Your task to perform on an android device: turn off notifications settings in the gmail app Image 0: 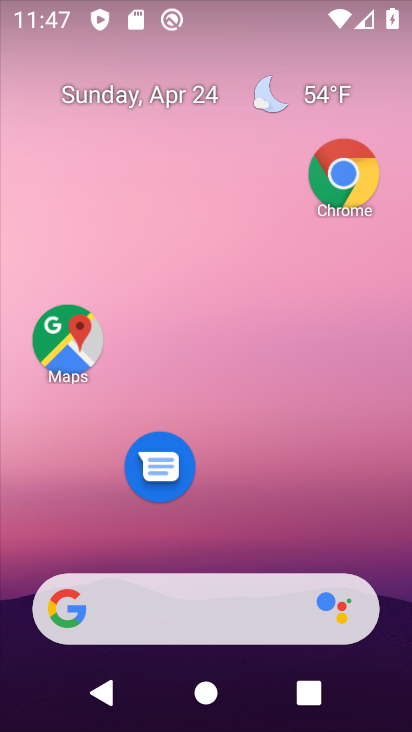
Step 0: drag from (231, 409) to (260, 169)
Your task to perform on an android device: turn off notifications settings in the gmail app Image 1: 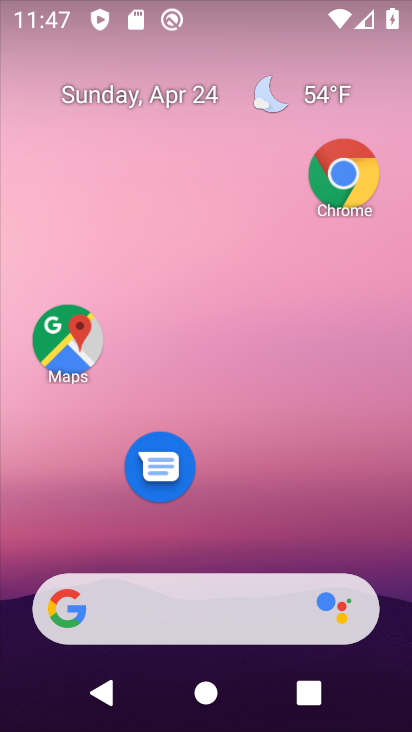
Step 1: drag from (220, 458) to (203, 121)
Your task to perform on an android device: turn off notifications settings in the gmail app Image 2: 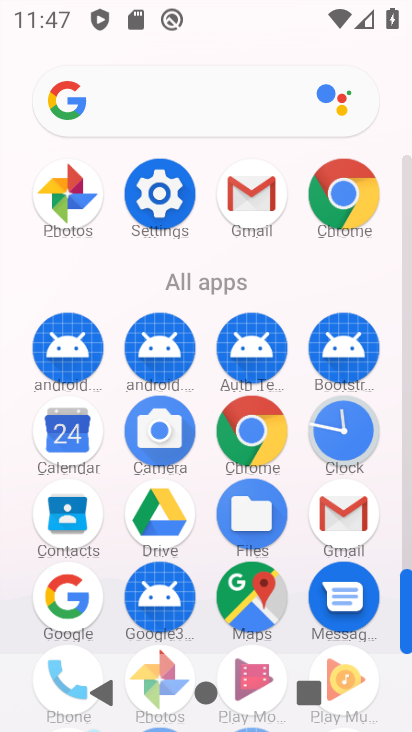
Step 2: click (336, 536)
Your task to perform on an android device: turn off notifications settings in the gmail app Image 3: 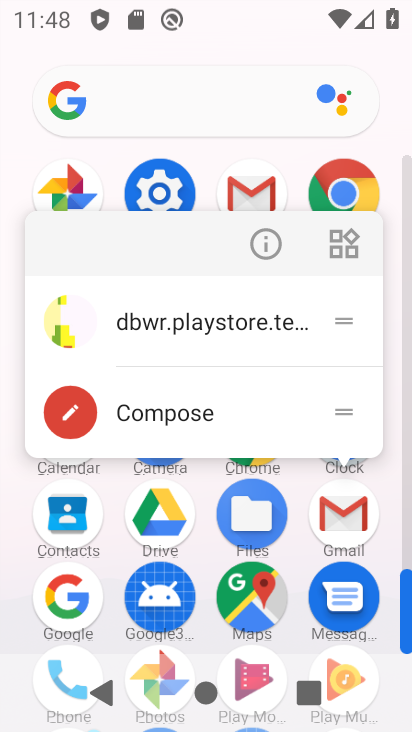
Step 3: click (250, 241)
Your task to perform on an android device: turn off notifications settings in the gmail app Image 4: 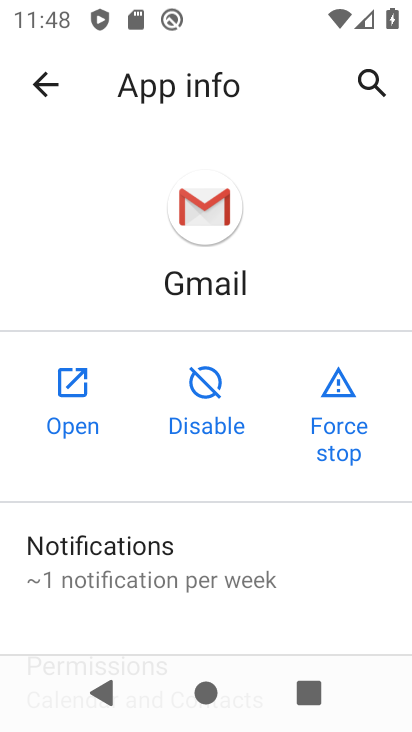
Step 4: click (77, 395)
Your task to perform on an android device: turn off notifications settings in the gmail app Image 5: 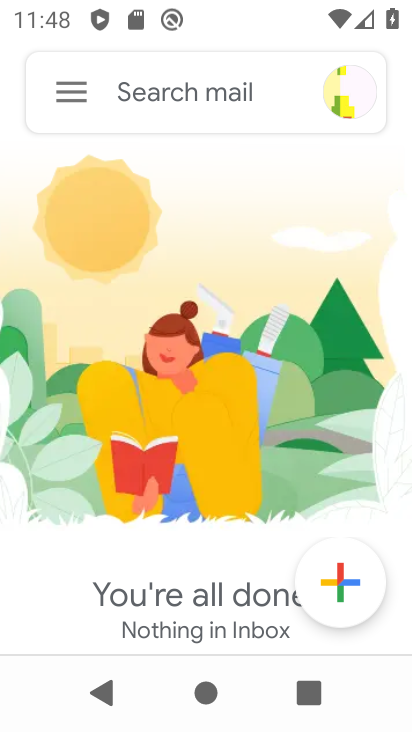
Step 5: click (68, 102)
Your task to perform on an android device: turn off notifications settings in the gmail app Image 6: 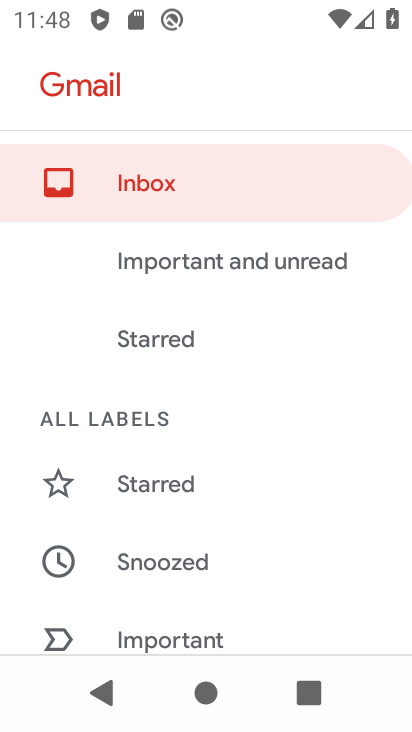
Step 6: drag from (214, 585) to (248, 127)
Your task to perform on an android device: turn off notifications settings in the gmail app Image 7: 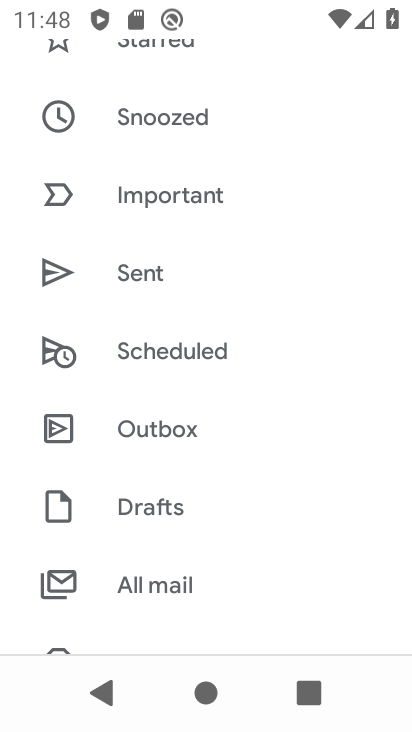
Step 7: drag from (162, 583) to (182, 78)
Your task to perform on an android device: turn off notifications settings in the gmail app Image 8: 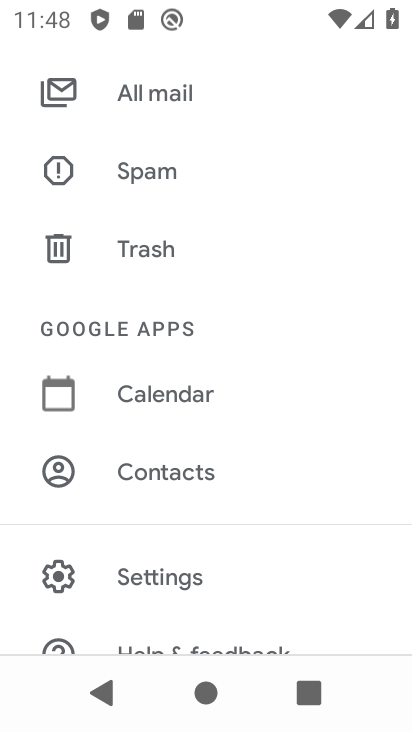
Step 8: click (199, 576)
Your task to perform on an android device: turn off notifications settings in the gmail app Image 9: 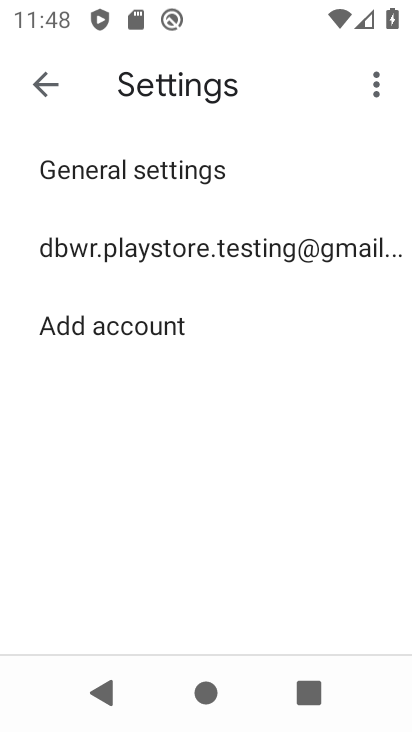
Step 9: click (172, 253)
Your task to perform on an android device: turn off notifications settings in the gmail app Image 10: 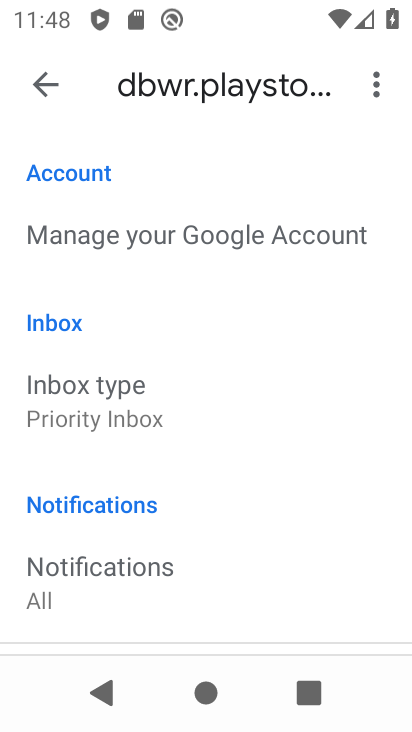
Step 10: drag from (223, 525) to (273, 168)
Your task to perform on an android device: turn off notifications settings in the gmail app Image 11: 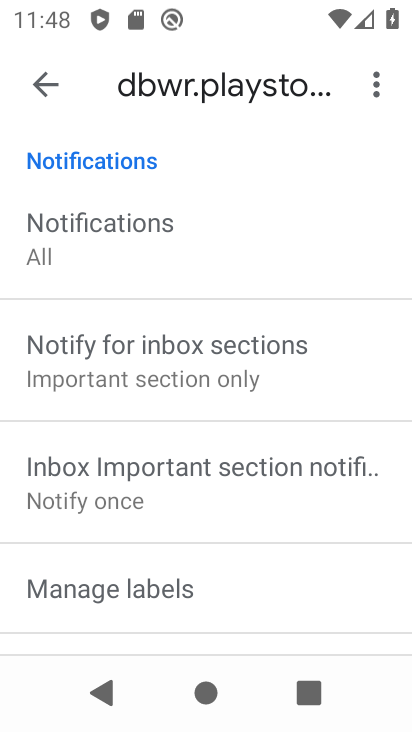
Step 11: drag from (222, 545) to (303, 301)
Your task to perform on an android device: turn off notifications settings in the gmail app Image 12: 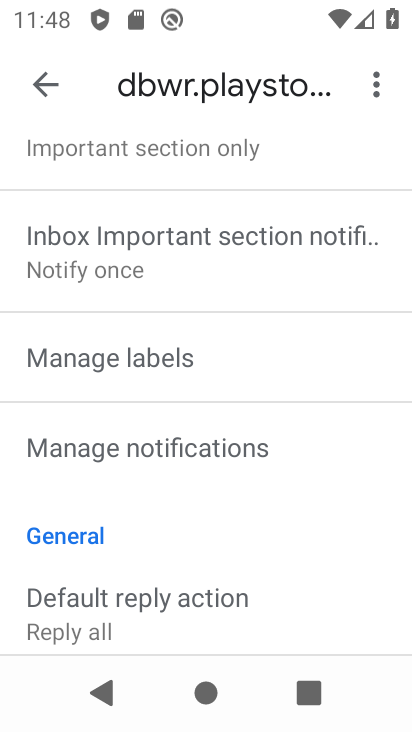
Step 12: click (214, 442)
Your task to perform on an android device: turn off notifications settings in the gmail app Image 13: 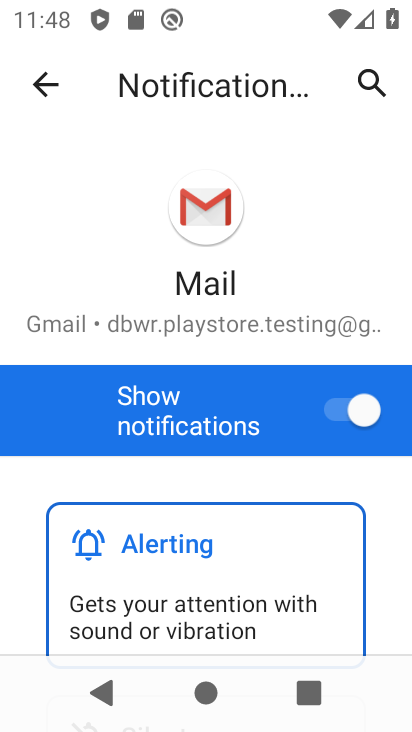
Step 13: click (264, 294)
Your task to perform on an android device: turn off notifications settings in the gmail app Image 14: 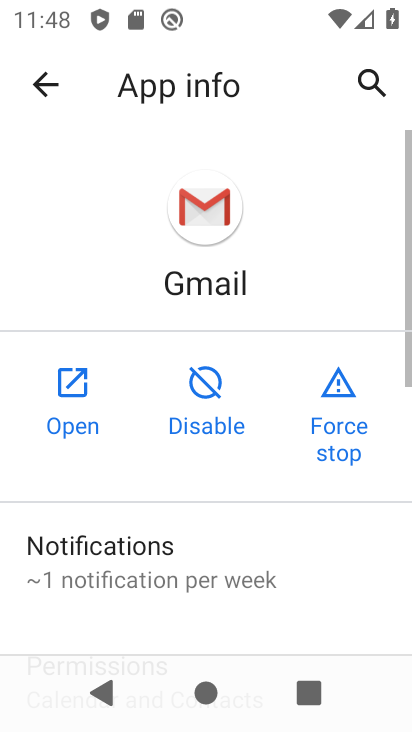
Step 14: drag from (209, 502) to (242, 309)
Your task to perform on an android device: turn off notifications settings in the gmail app Image 15: 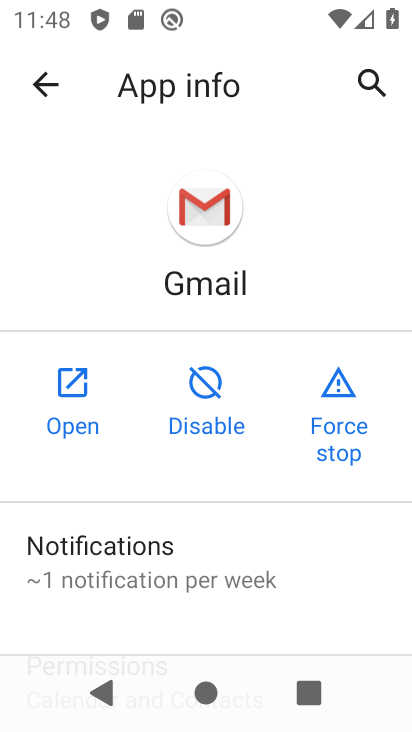
Step 15: click (60, 408)
Your task to perform on an android device: turn off notifications settings in the gmail app Image 16: 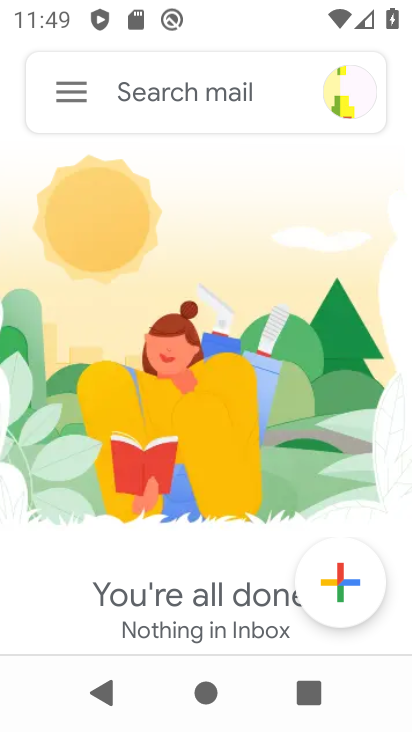
Step 16: drag from (163, 593) to (226, 260)
Your task to perform on an android device: turn off notifications settings in the gmail app Image 17: 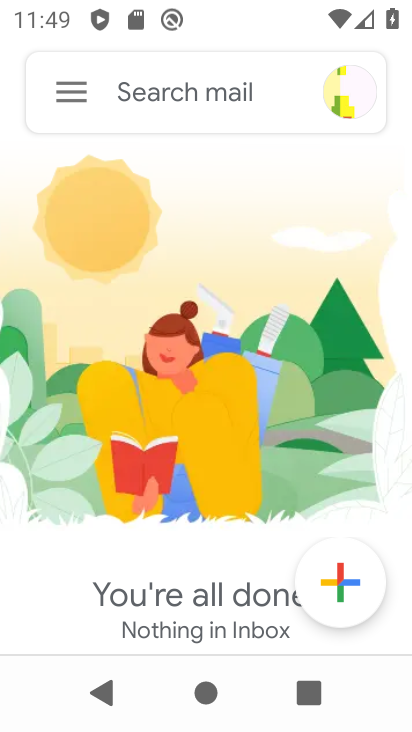
Step 17: click (66, 111)
Your task to perform on an android device: turn off notifications settings in the gmail app Image 18: 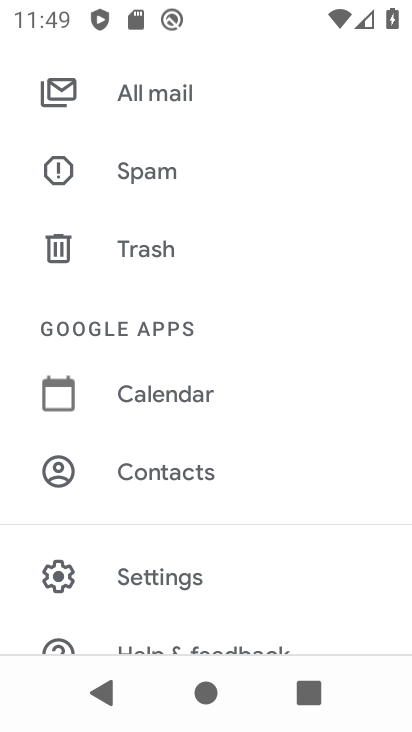
Step 18: task complete